Your task to perform on an android device: check data usage Image 0: 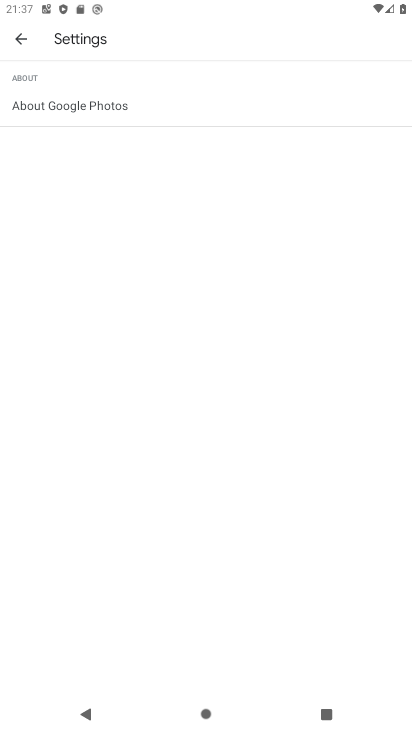
Step 0: press home button
Your task to perform on an android device: check data usage Image 1: 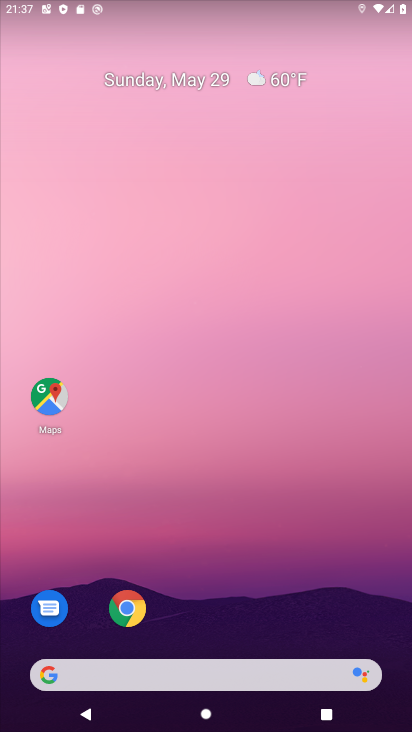
Step 1: drag from (345, 601) to (339, 172)
Your task to perform on an android device: check data usage Image 2: 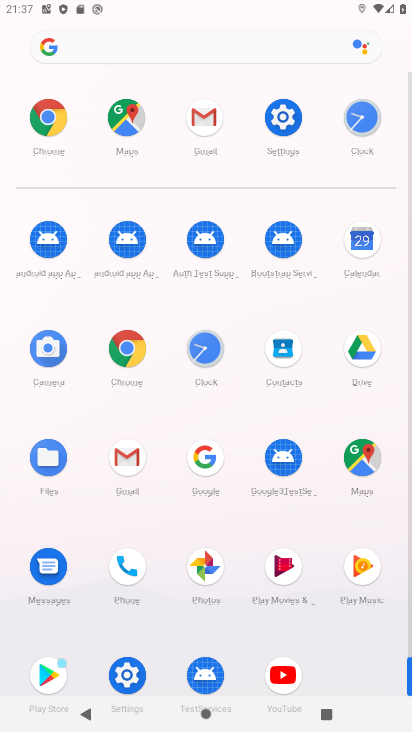
Step 2: click (286, 122)
Your task to perform on an android device: check data usage Image 3: 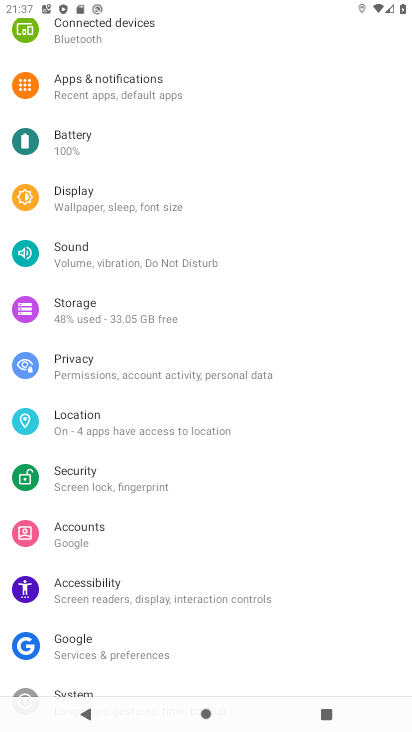
Step 3: drag from (316, 232) to (314, 295)
Your task to perform on an android device: check data usage Image 4: 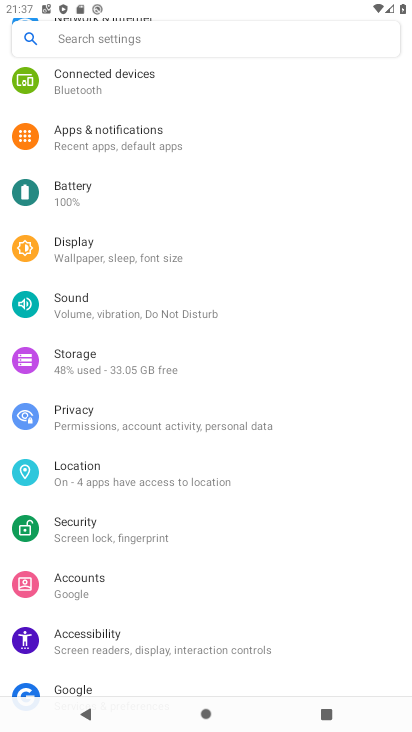
Step 4: drag from (307, 199) to (306, 274)
Your task to perform on an android device: check data usage Image 5: 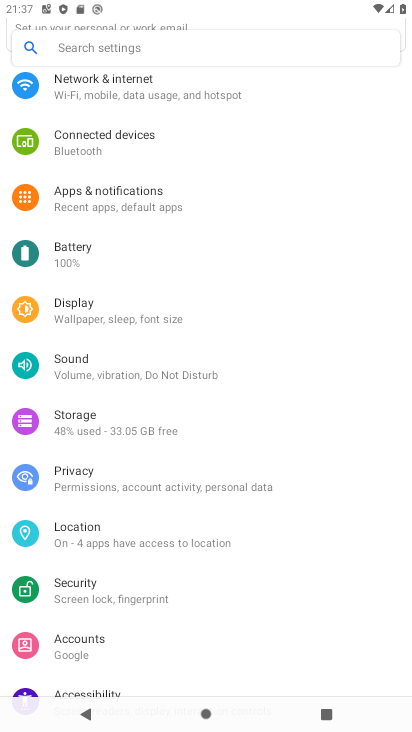
Step 5: drag from (307, 173) to (303, 264)
Your task to perform on an android device: check data usage Image 6: 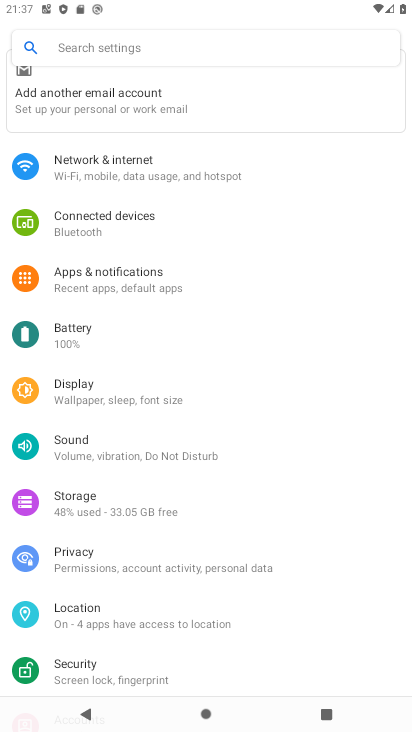
Step 6: drag from (303, 188) to (302, 303)
Your task to perform on an android device: check data usage Image 7: 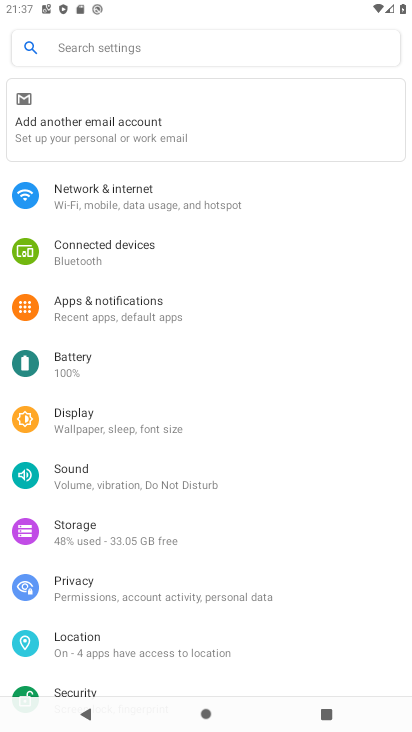
Step 7: click (238, 211)
Your task to perform on an android device: check data usage Image 8: 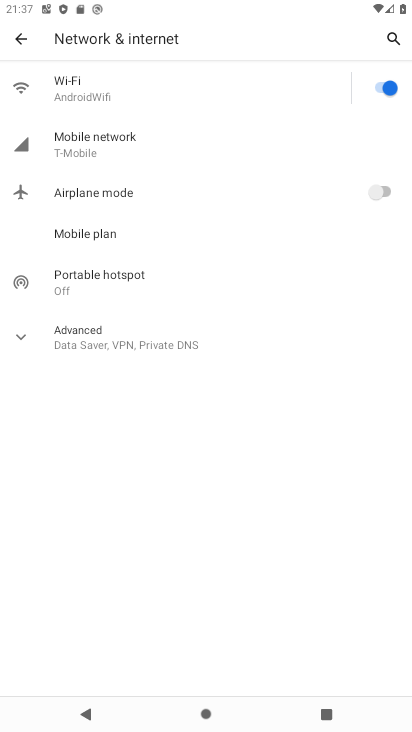
Step 8: click (132, 151)
Your task to perform on an android device: check data usage Image 9: 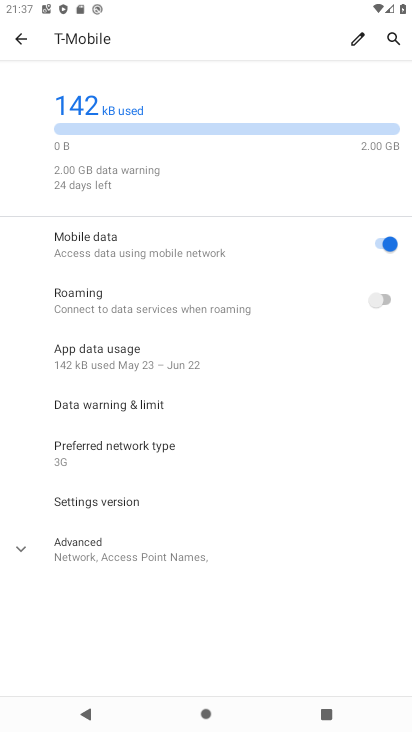
Step 9: click (191, 370)
Your task to perform on an android device: check data usage Image 10: 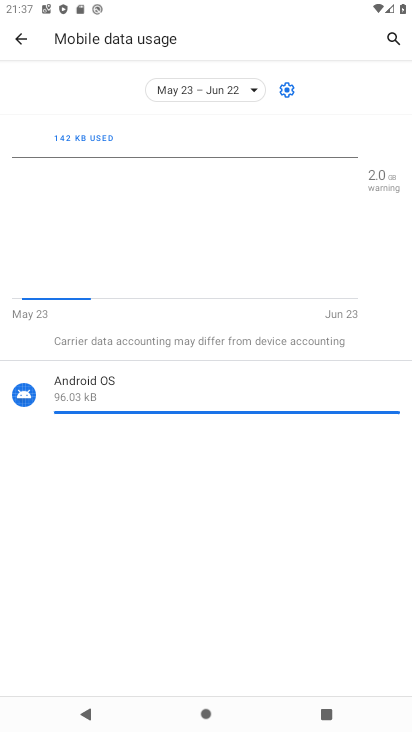
Step 10: task complete